Your task to perform on an android device: Set an alarm for 7am Image 0: 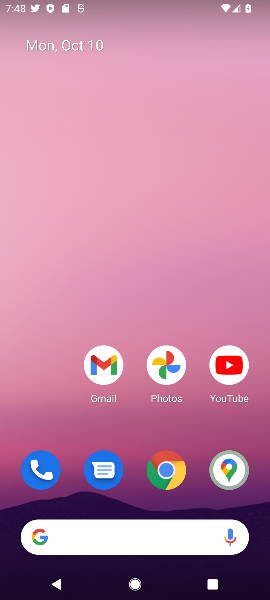
Step 0: drag from (124, 505) to (79, 60)
Your task to perform on an android device: Set an alarm for 7am Image 1: 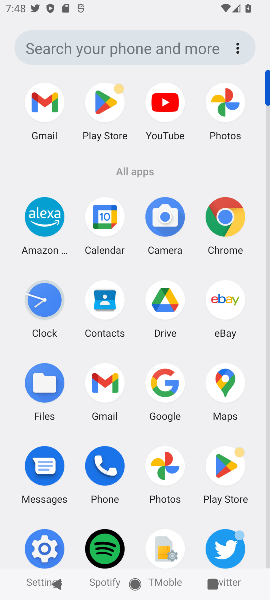
Step 1: click (40, 304)
Your task to perform on an android device: Set an alarm for 7am Image 2: 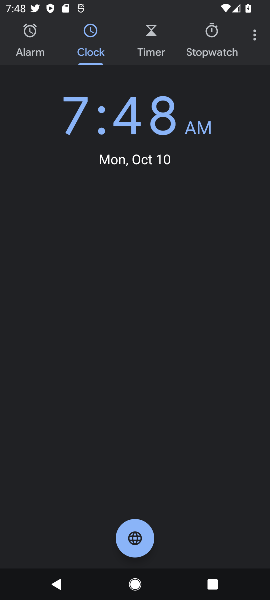
Step 2: click (17, 42)
Your task to perform on an android device: Set an alarm for 7am Image 3: 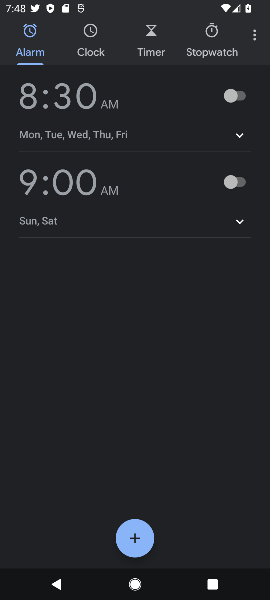
Step 3: click (138, 538)
Your task to perform on an android device: Set an alarm for 7am Image 4: 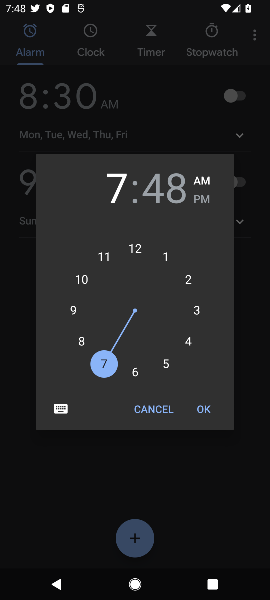
Step 4: click (164, 191)
Your task to perform on an android device: Set an alarm for 7am Image 5: 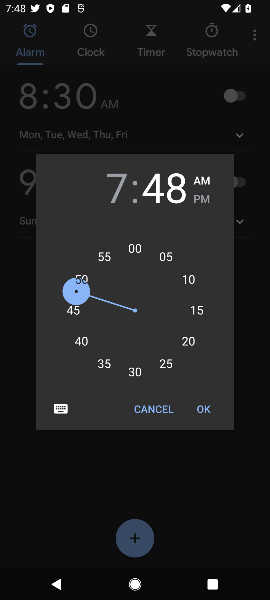
Step 5: click (140, 245)
Your task to perform on an android device: Set an alarm for 7am Image 6: 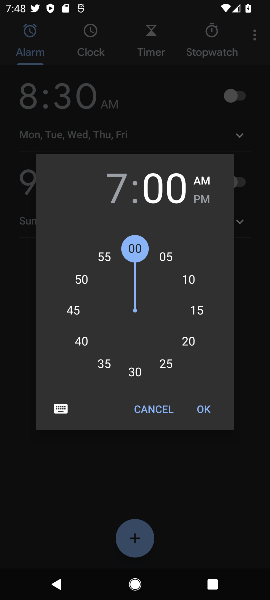
Step 6: click (205, 407)
Your task to perform on an android device: Set an alarm for 7am Image 7: 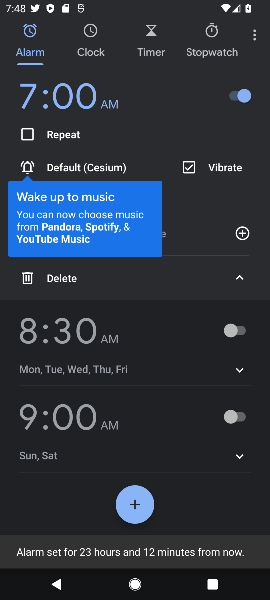
Step 7: task complete